Your task to perform on an android device: find snoozed emails in the gmail app Image 0: 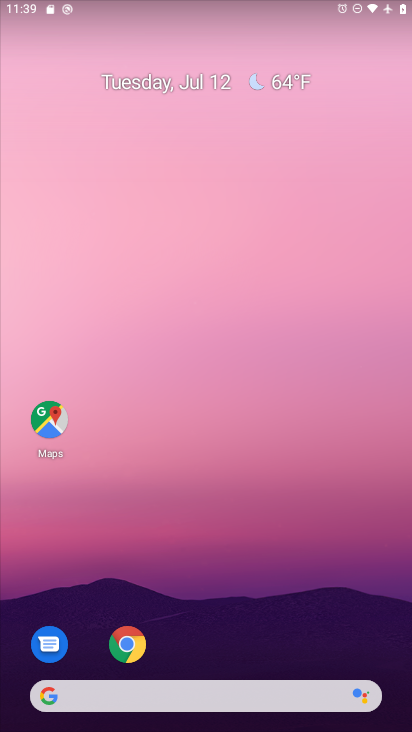
Step 0: drag from (267, 644) to (253, 161)
Your task to perform on an android device: find snoozed emails in the gmail app Image 1: 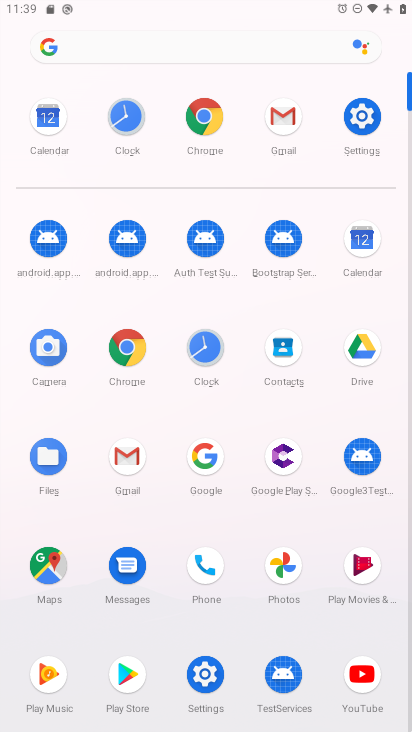
Step 1: click (290, 111)
Your task to perform on an android device: find snoozed emails in the gmail app Image 2: 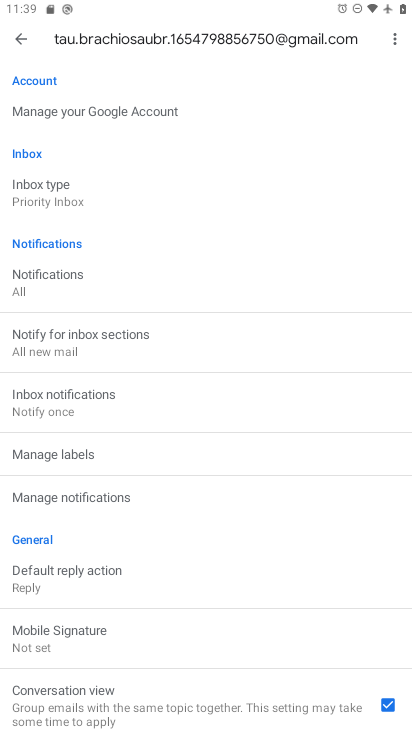
Step 2: click (27, 40)
Your task to perform on an android device: find snoozed emails in the gmail app Image 3: 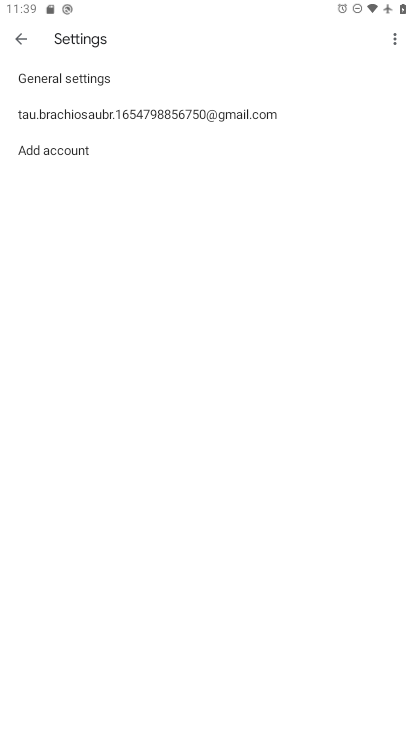
Step 3: click (27, 40)
Your task to perform on an android device: find snoozed emails in the gmail app Image 4: 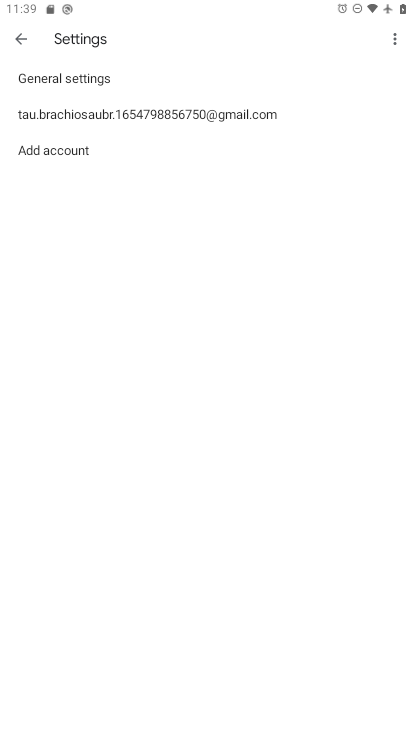
Step 4: click (29, 41)
Your task to perform on an android device: find snoozed emails in the gmail app Image 5: 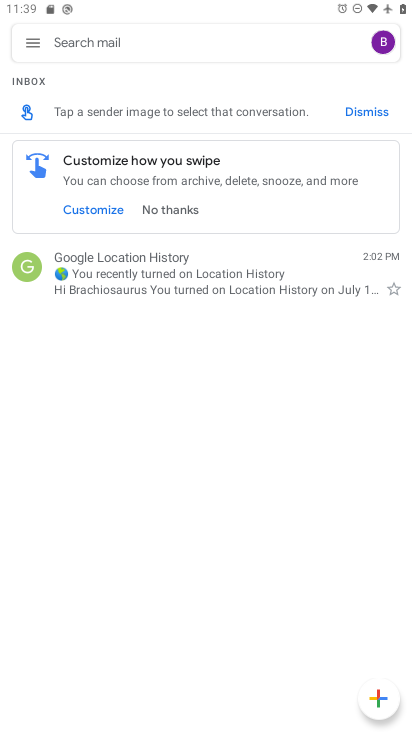
Step 5: click (28, 41)
Your task to perform on an android device: find snoozed emails in the gmail app Image 6: 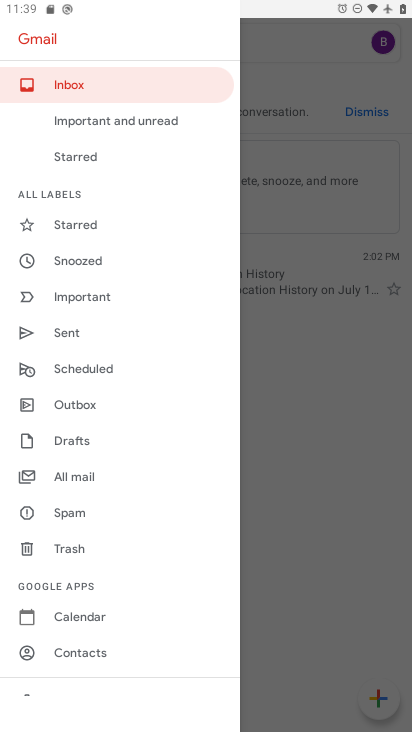
Step 6: click (75, 252)
Your task to perform on an android device: find snoozed emails in the gmail app Image 7: 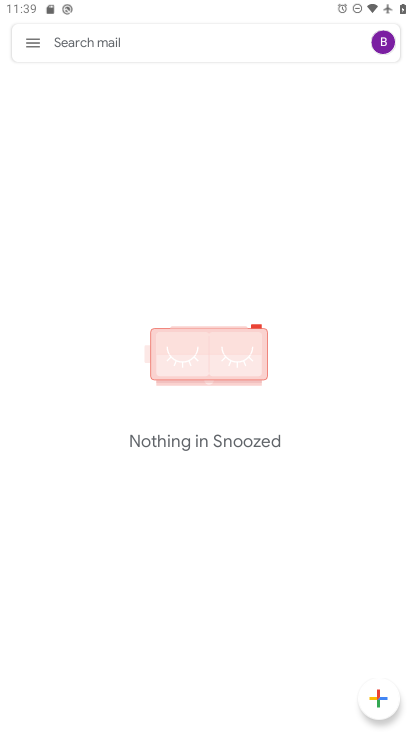
Step 7: task complete